Your task to perform on an android device: change keyboard looks Image 0: 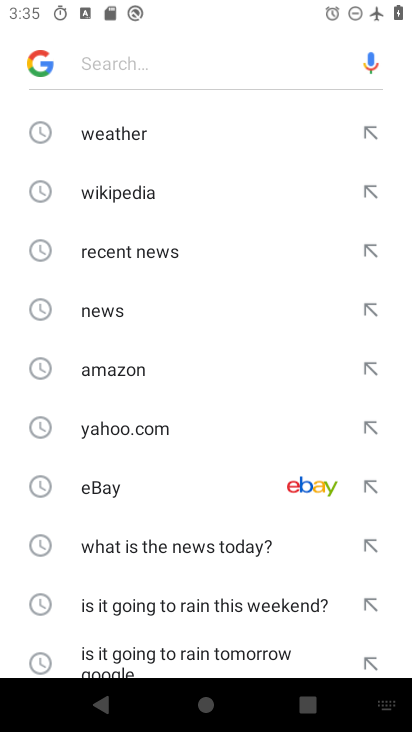
Step 0: press home button
Your task to perform on an android device: change keyboard looks Image 1: 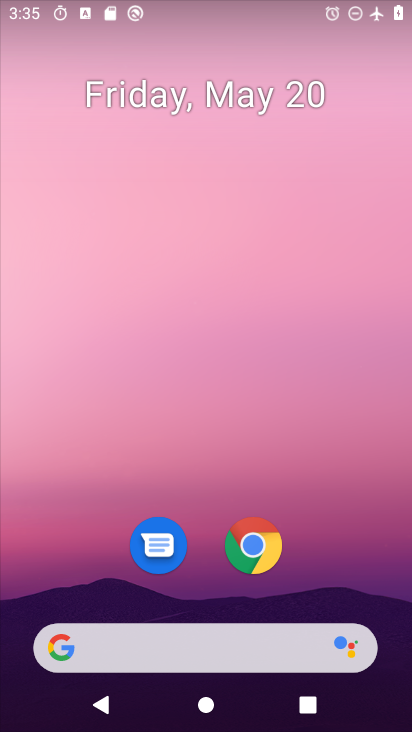
Step 1: drag from (312, 667) to (272, 3)
Your task to perform on an android device: change keyboard looks Image 2: 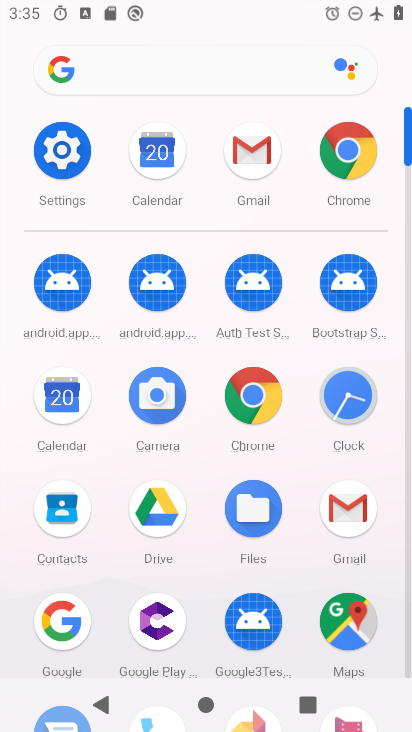
Step 2: click (50, 155)
Your task to perform on an android device: change keyboard looks Image 3: 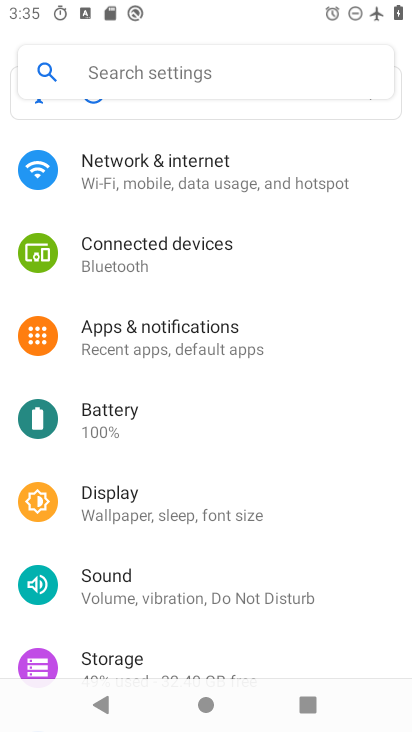
Step 3: drag from (281, 597) to (274, 49)
Your task to perform on an android device: change keyboard looks Image 4: 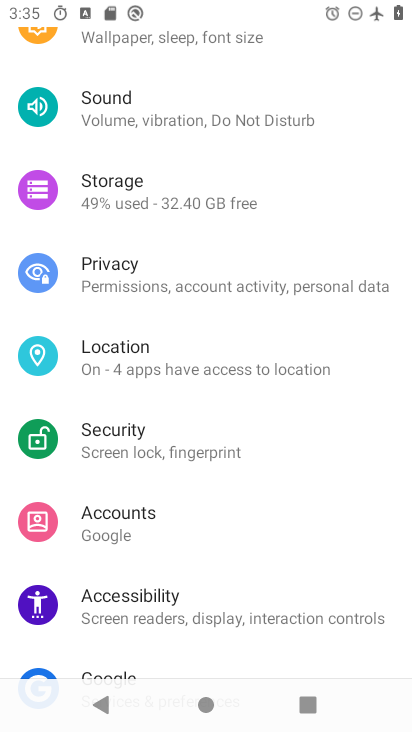
Step 4: drag from (206, 626) to (213, 271)
Your task to perform on an android device: change keyboard looks Image 5: 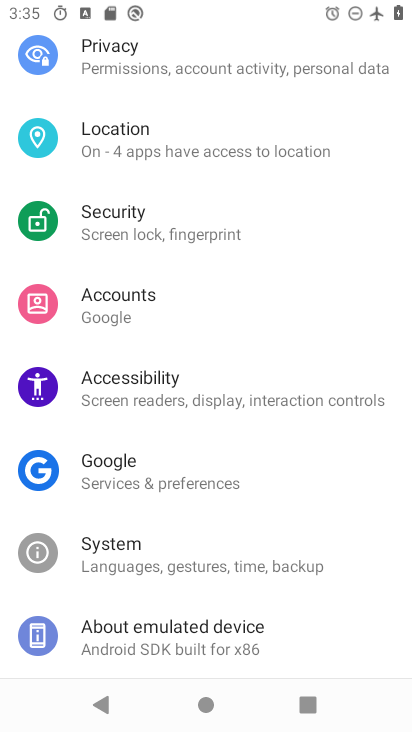
Step 5: click (171, 561)
Your task to perform on an android device: change keyboard looks Image 6: 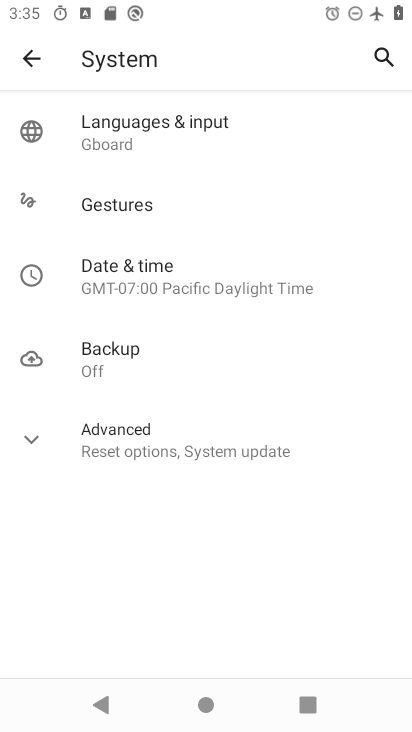
Step 6: click (171, 129)
Your task to perform on an android device: change keyboard looks Image 7: 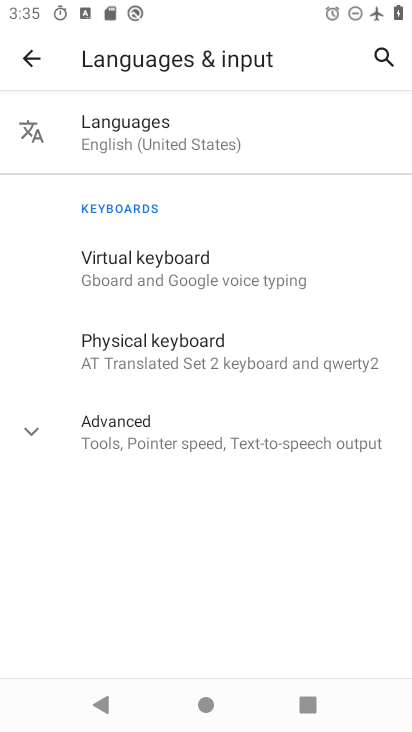
Step 7: click (232, 263)
Your task to perform on an android device: change keyboard looks Image 8: 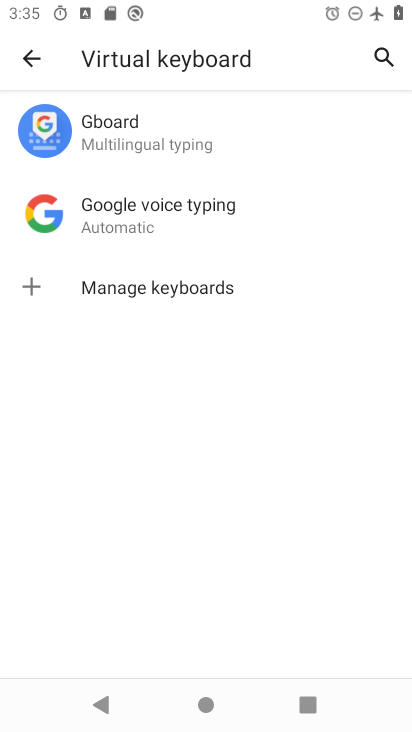
Step 8: click (186, 149)
Your task to perform on an android device: change keyboard looks Image 9: 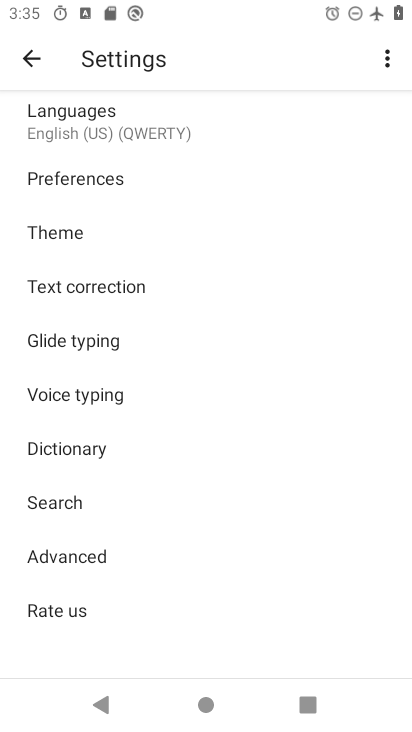
Step 9: click (111, 236)
Your task to perform on an android device: change keyboard looks Image 10: 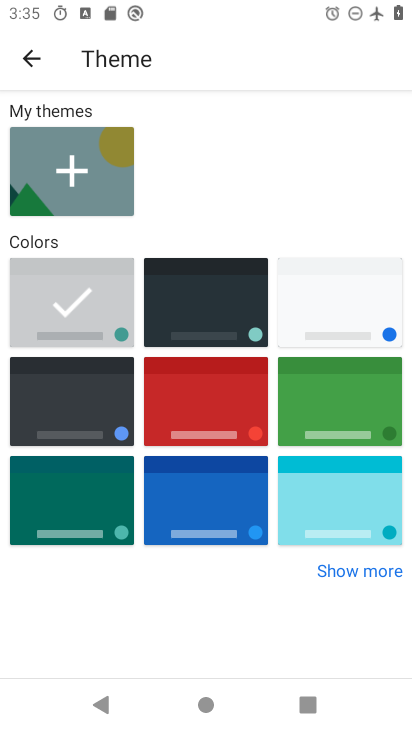
Step 10: click (328, 407)
Your task to perform on an android device: change keyboard looks Image 11: 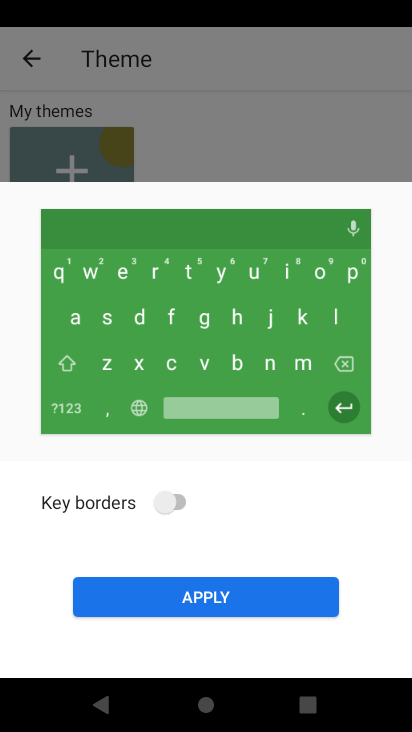
Step 11: click (240, 603)
Your task to perform on an android device: change keyboard looks Image 12: 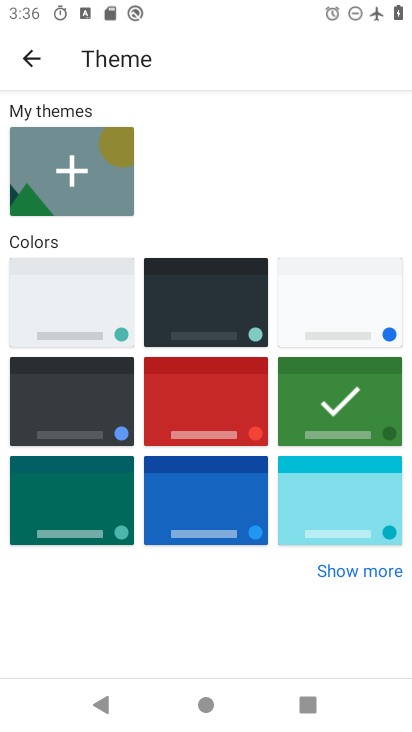
Step 12: task complete